Your task to perform on an android device: Open privacy settings Image 0: 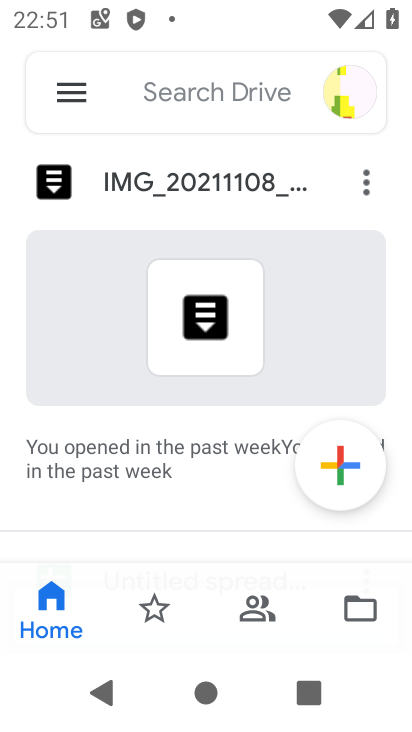
Step 0: press home button
Your task to perform on an android device: Open privacy settings Image 1: 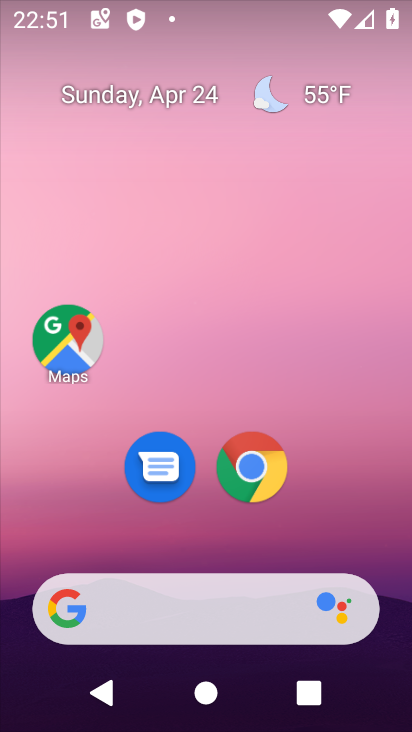
Step 1: drag from (192, 539) to (202, 93)
Your task to perform on an android device: Open privacy settings Image 2: 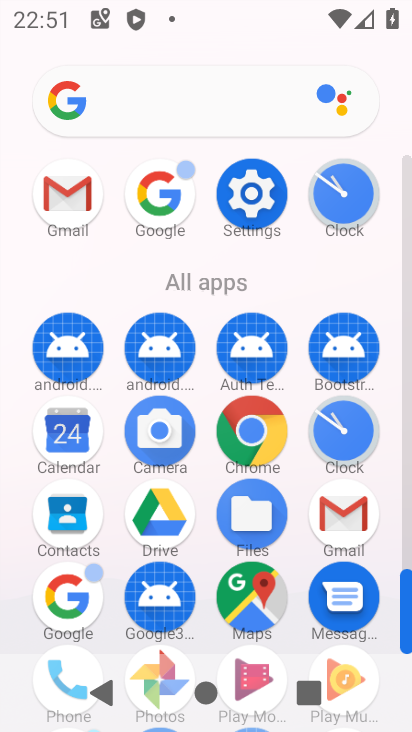
Step 2: click (256, 424)
Your task to perform on an android device: Open privacy settings Image 3: 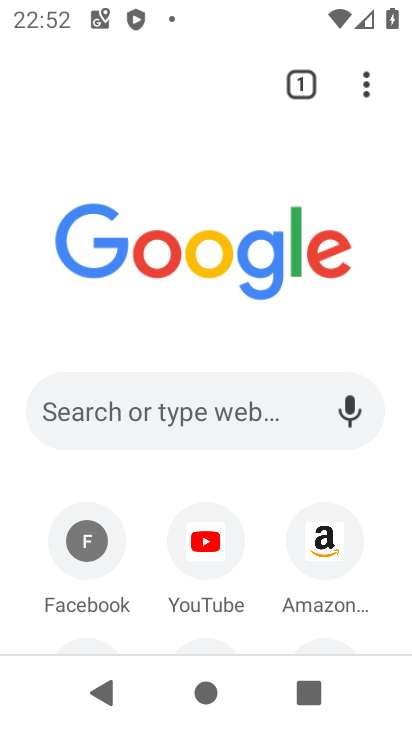
Step 3: click (363, 84)
Your task to perform on an android device: Open privacy settings Image 4: 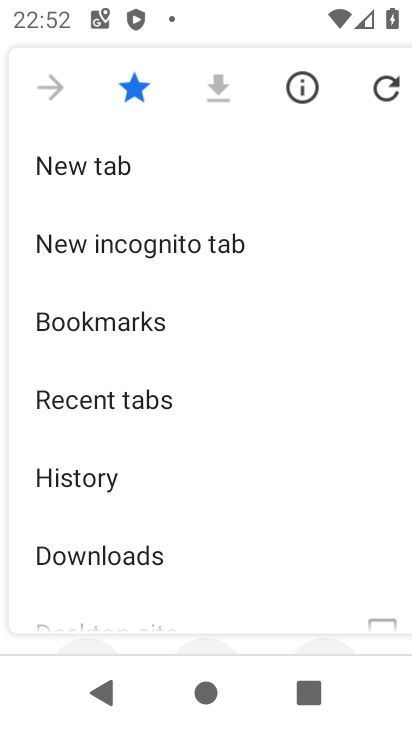
Step 4: drag from (234, 545) to (233, 111)
Your task to perform on an android device: Open privacy settings Image 5: 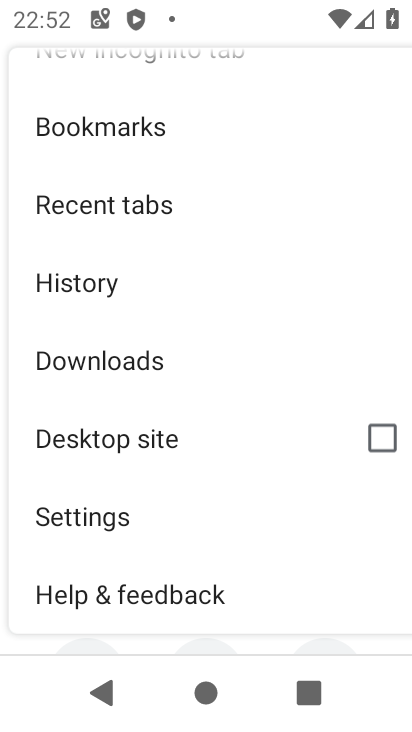
Step 5: click (99, 519)
Your task to perform on an android device: Open privacy settings Image 6: 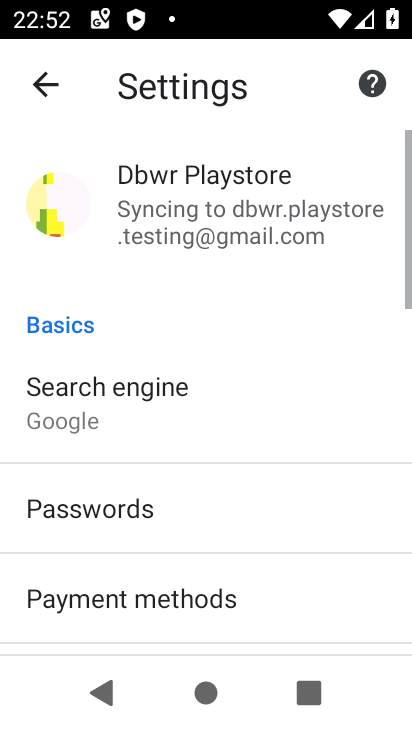
Step 6: drag from (250, 504) to (279, 116)
Your task to perform on an android device: Open privacy settings Image 7: 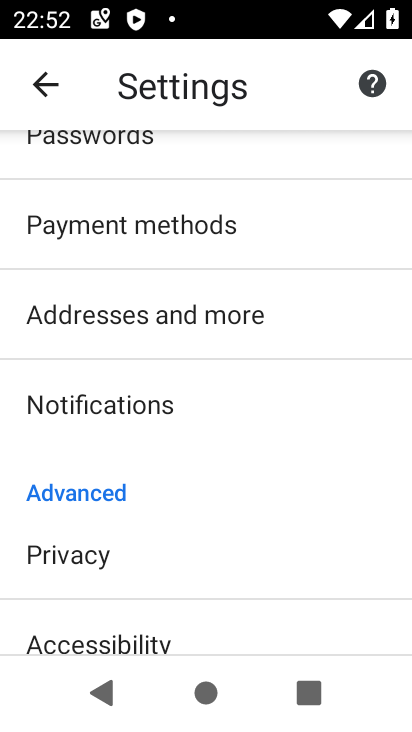
Step 7: click (89, 549)
Your task to perform on an android device: Open privacy settings Image 8: 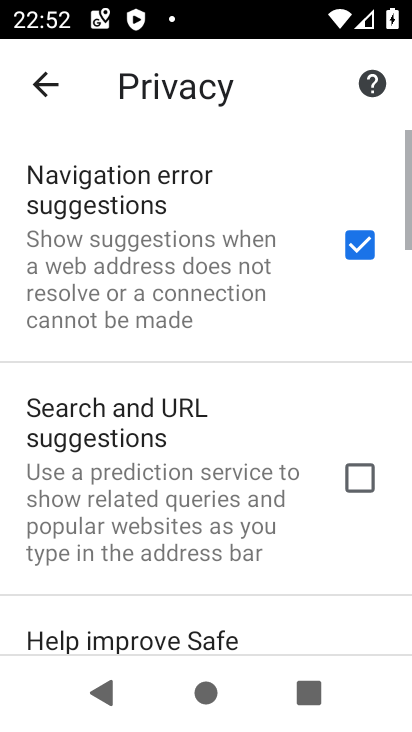
Step 8: task complete